Your task to perform on an android device: Open calendar and show me the second week of next month Image 0: 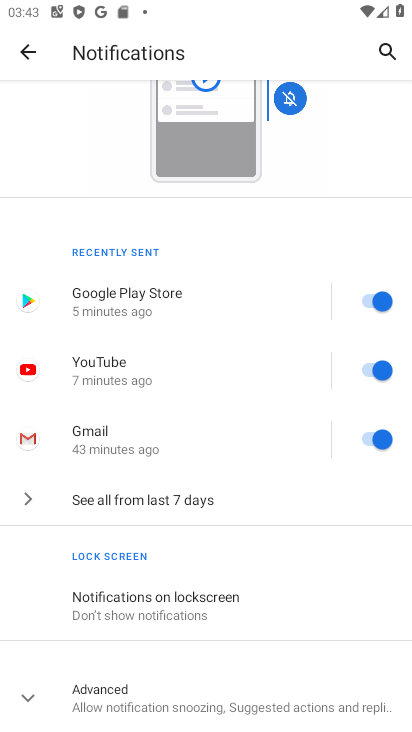
Step 0: press home button
Your task to perform on an android device: Open calendar and show me the second week of next month Image 1: 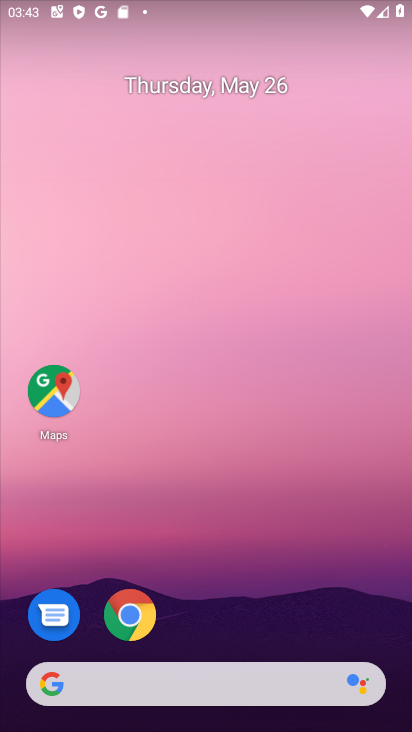
Step 1: drag from (198, 645) to (212, 192)
Your task to perform on an android device: Open calendar and show me the second week of next month Image 2: 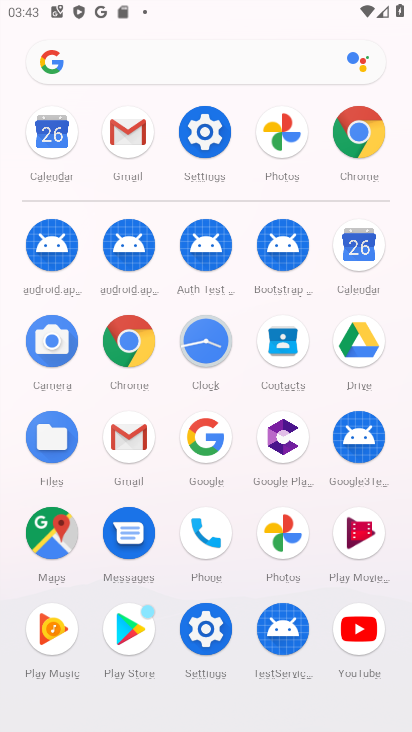
Step 2: click (361, 259)
Your task to perform on an android device: Open calendar and show me the second week of next month Image 3: 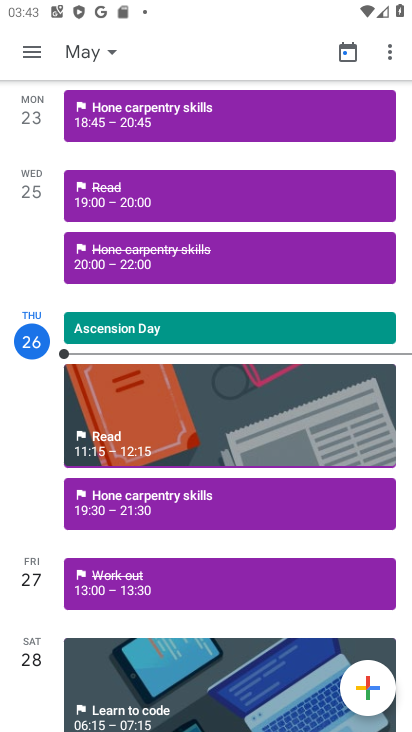
Step 3: click (78, 57)
Your task to perform on an android device: Open calendar and show me the second week of next month Image 4: 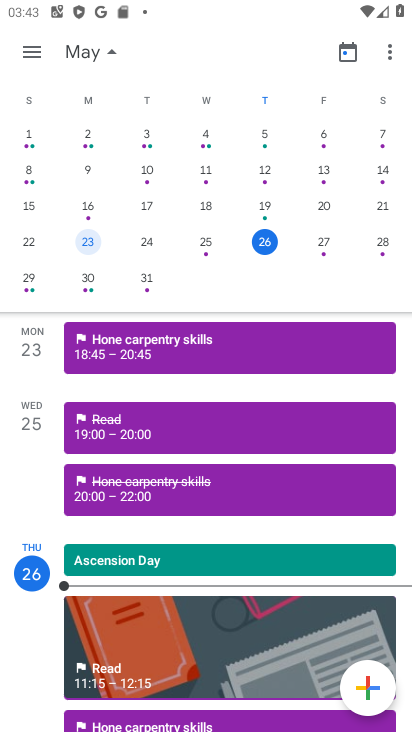
Step 4: click (39, 50)
Your task to perform on an android device: Open calendar and show me the second week of next month Image 5: 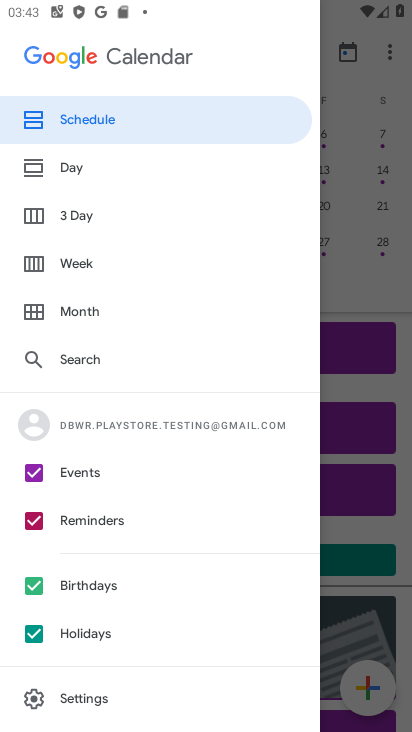
Step 5: click (77, 263)
Your task to perform on an android device: Open calendar and show me the second week of next month Image 6: 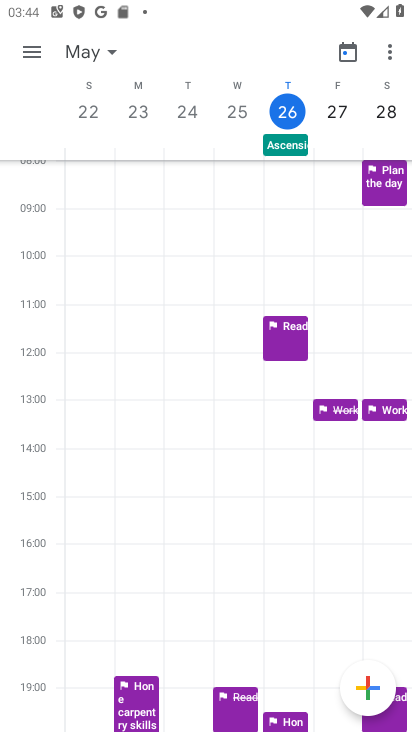
Step 6: click (98, 57)
Your task to perform on an android device: Open calendar and show me the second week of next month Image 7: 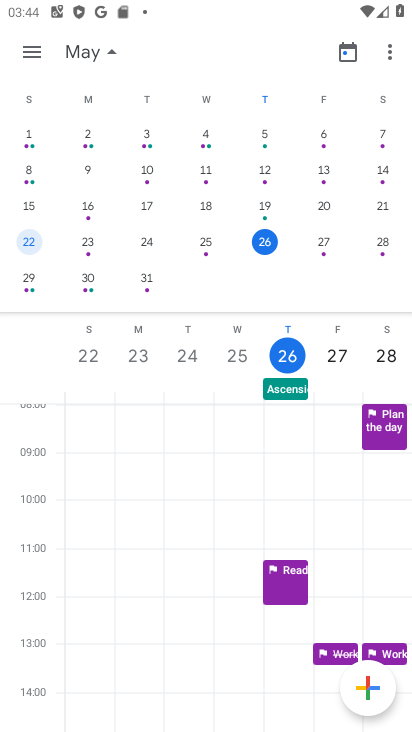
Step 7: drag from (365, 174) to (11, 161)
Your task to perform on an android device: Open calendar and show me the second week of next month Image 8: 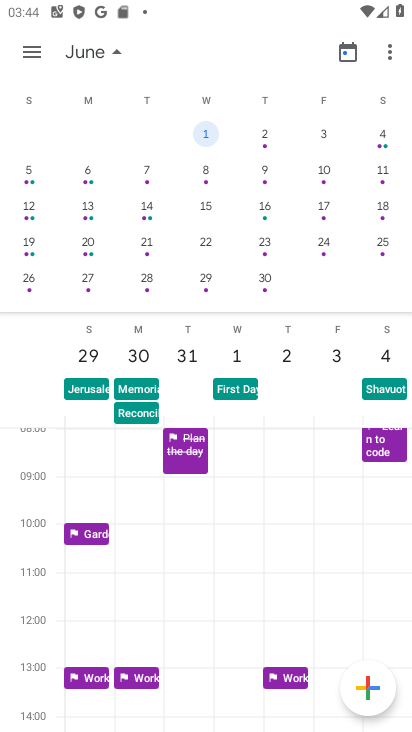
Step 8: click (29, 211)
Your task to perform on an android device: Open calendar and show me the second week of next month Image 9: 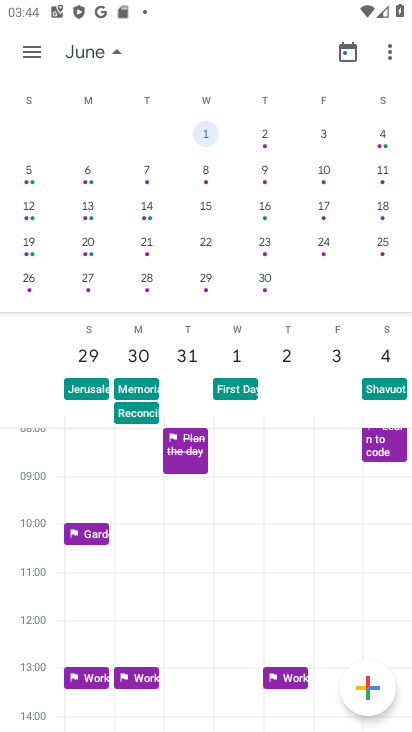
Step 9: click (29, 211)
Your task to perform on an android device: Open calendar and show me the second week of next month Image 10: 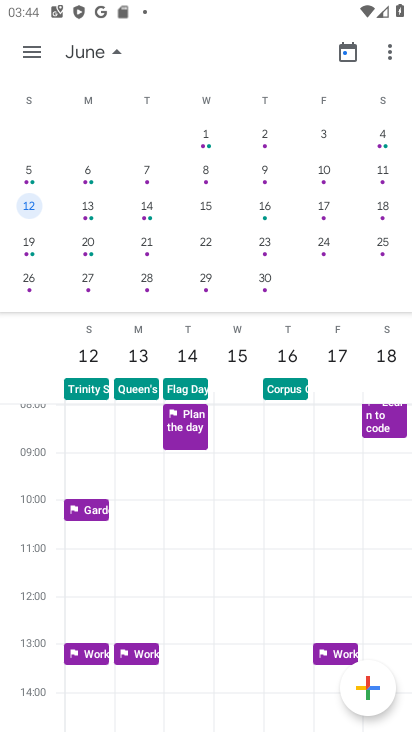
Step 10: task complete